Your task to perform on an android device: Go to ESPN.com Image 0: 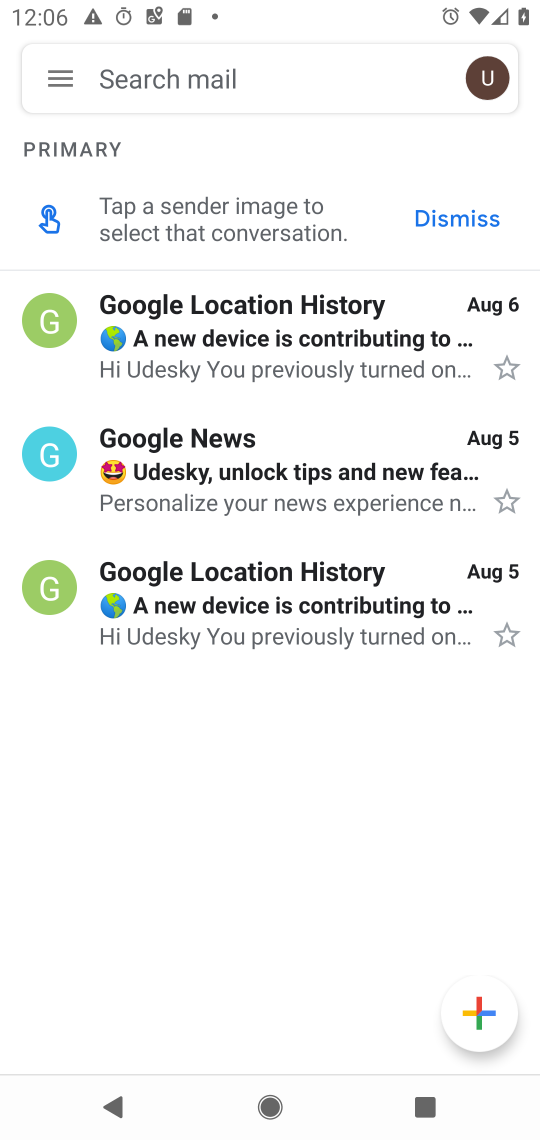
Step 0: press home button
Your task to perform on an android device: Go to ESPN.com Image 1: 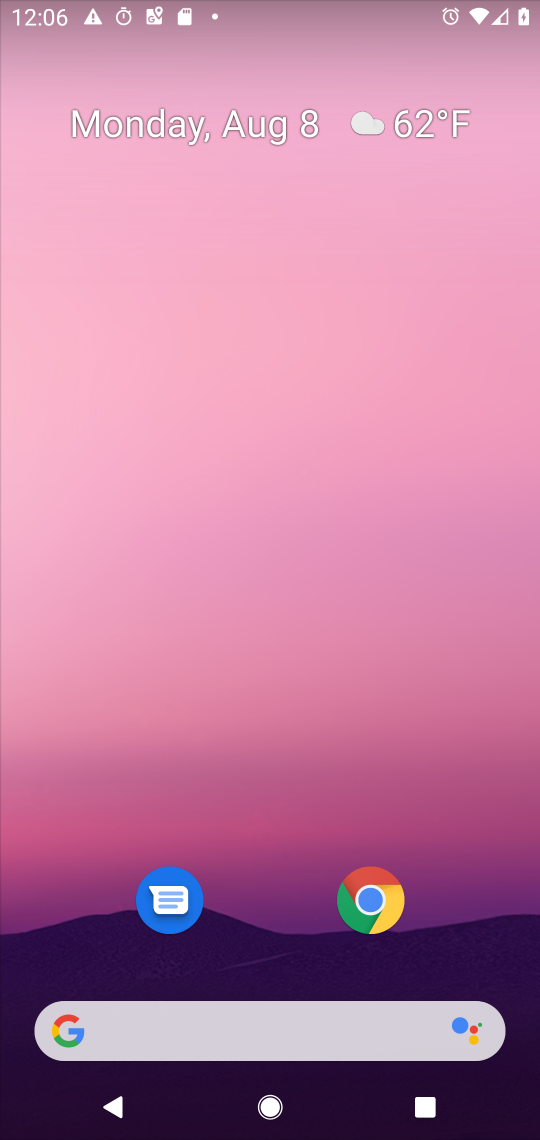
Step 1: drag from (275, 967) to (329, 37)
Your task to perform on an android device: Go to ESPN.com Image 2: 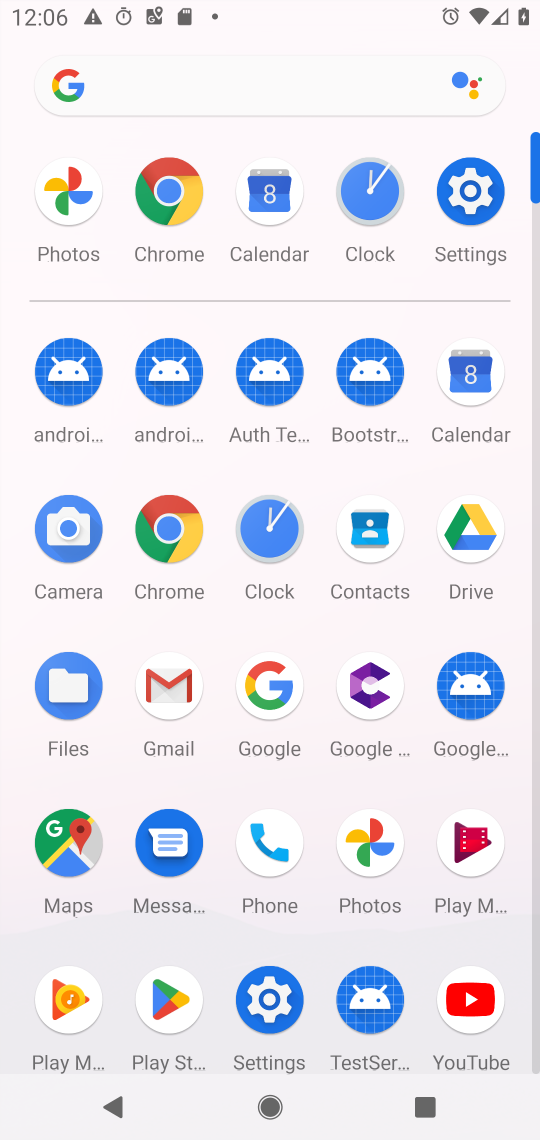
Step 2: click (174, 520)
Your task to perform on an android device: Go to ESPN.com Image 3: 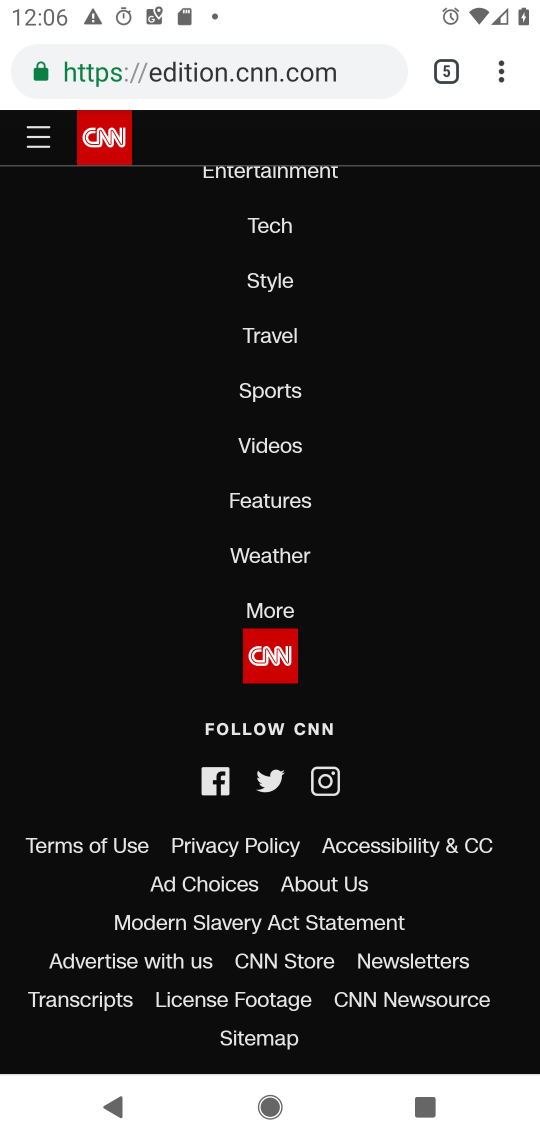
Step 3: click (440, 72)
Your task to perform on an android device: Go to ESPN.com Image 4: 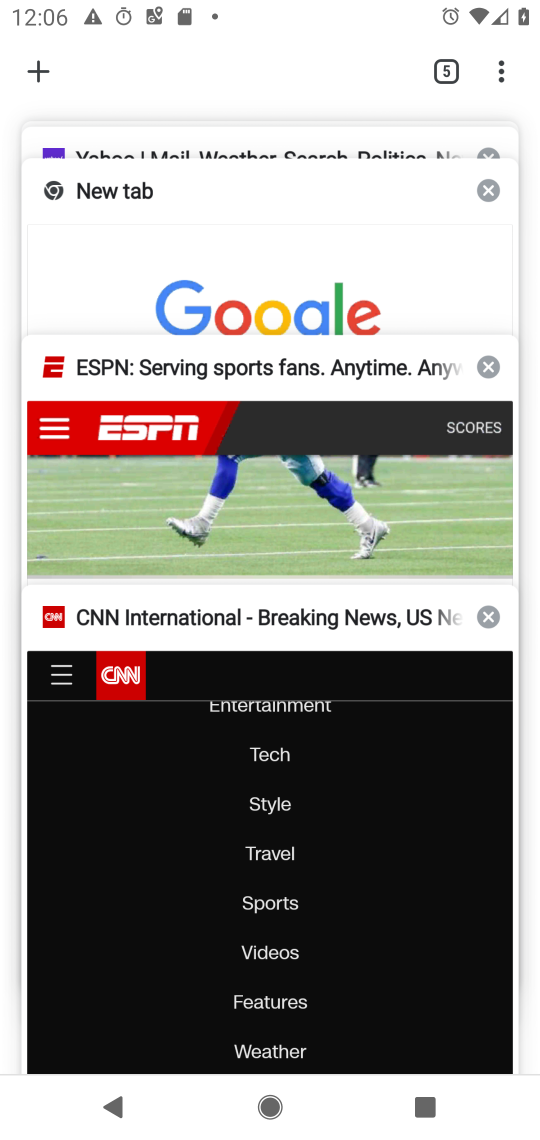
Step 4: click (296, 497)
Your task to perform on an android device: Go to ESPN.com Image 5: 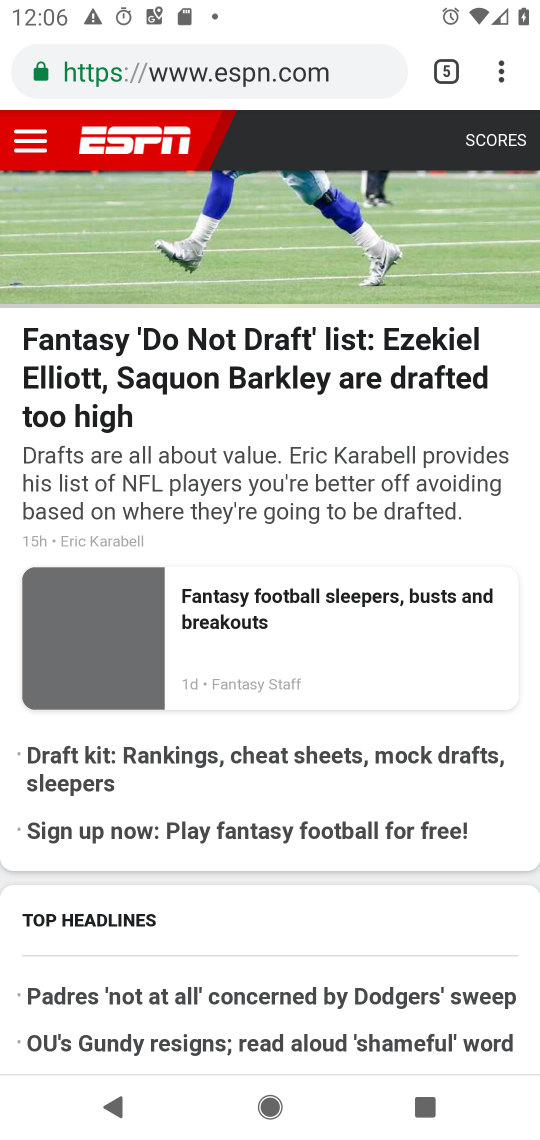
Step 5: task complete